Your task to perform on an android device: Open Yahoo.com Image 0: 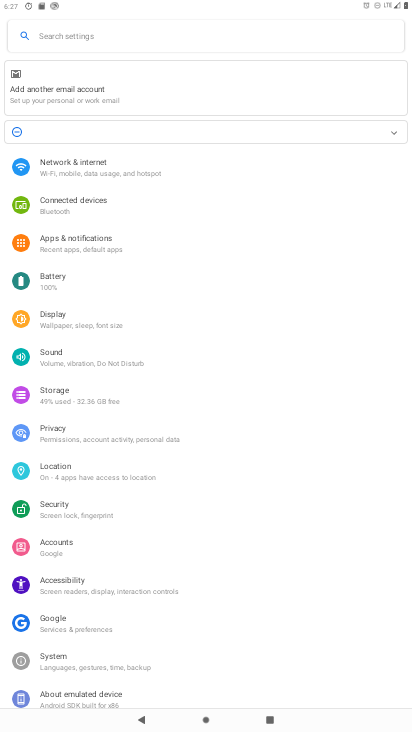
Step 0: press home button
Your task to perform on an android device: Open Yahoo.com Image 1: 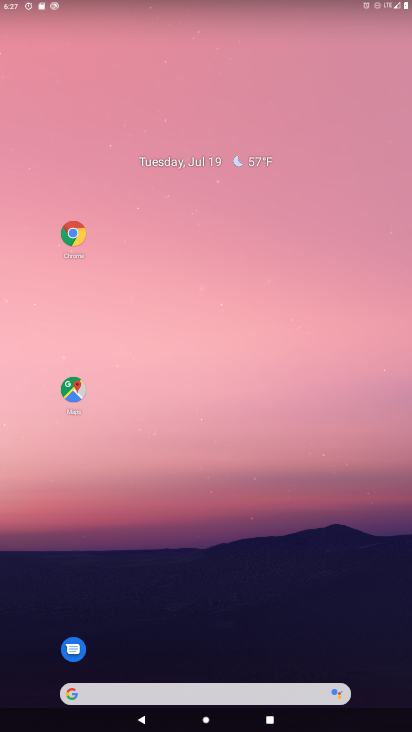
Step 1: click (71, 235)
Your task to perform on an android device: Open Yahoo.com Image 2: 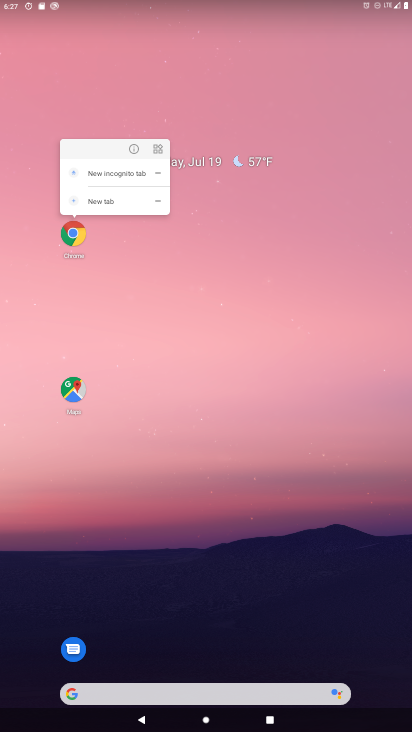
Step 2: click (71, 235)
Your task to perform on an android device: Open Yahoo.com Image 3: 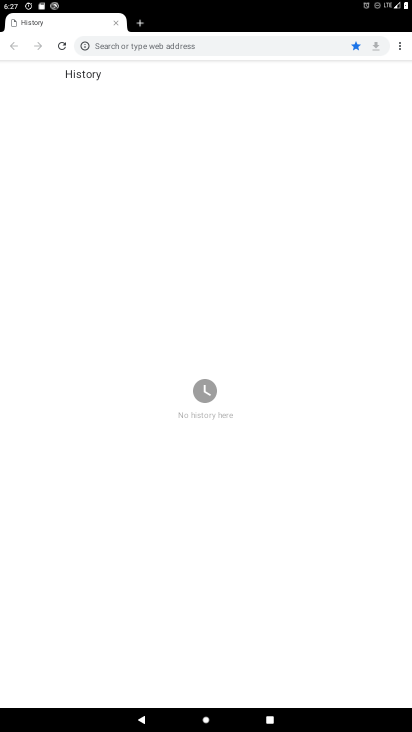
Step 3: click (157, 37)
Your task to perform on an android device: Open Yahoo.com Image 4: 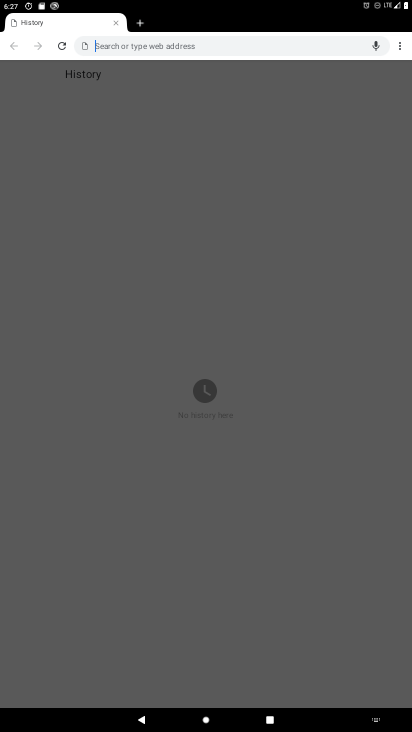
Step 4: type "www.yahoo.com"
Your task to perform on an android device: Open Yahoo.com Image 5: 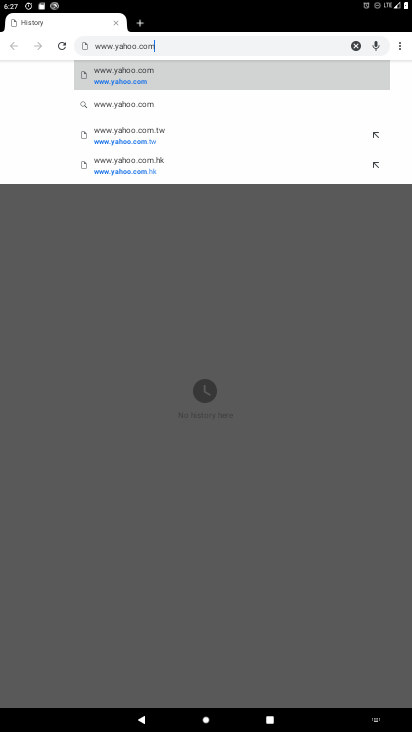
Step 5: click (122, 75)
Your task to perform on an android device: Open Yahoo.com Image 6: 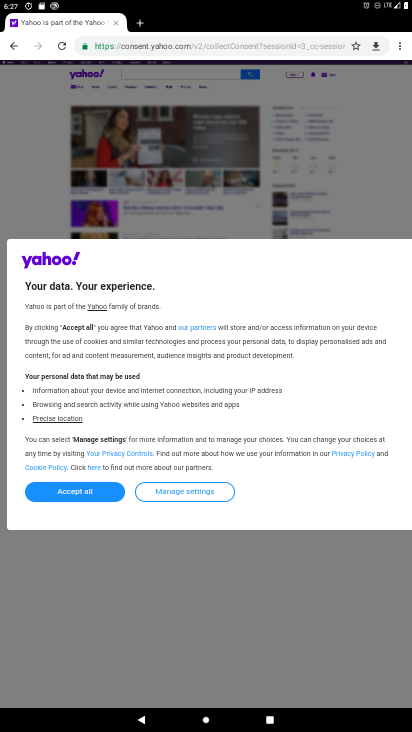
Step 6: task complete